Your task to perform on an android device: Open privacy settings Image 0: 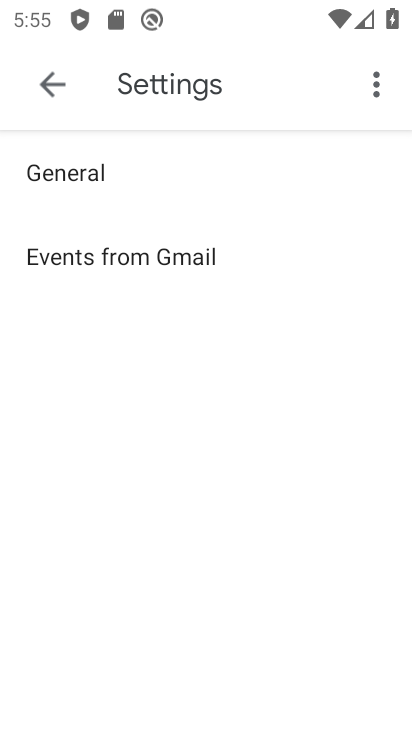
Step 0: press home button
Your task to perform on an android device: Open privacy settings Image 1: 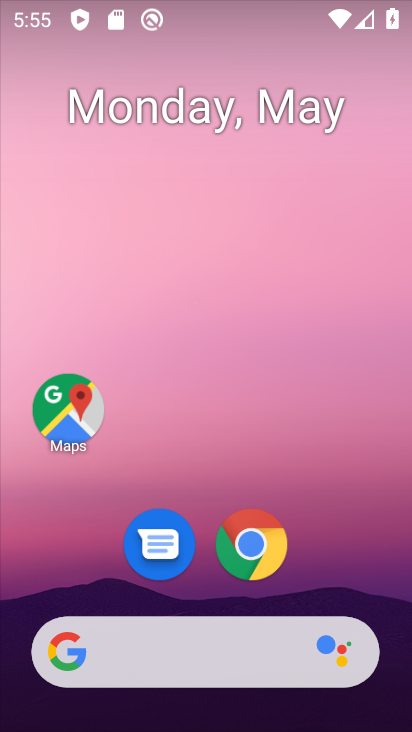
Step 1: drag from (345, 549) to (222, 10)
Your task to perform on an android device: Open privacy settings Image 2: 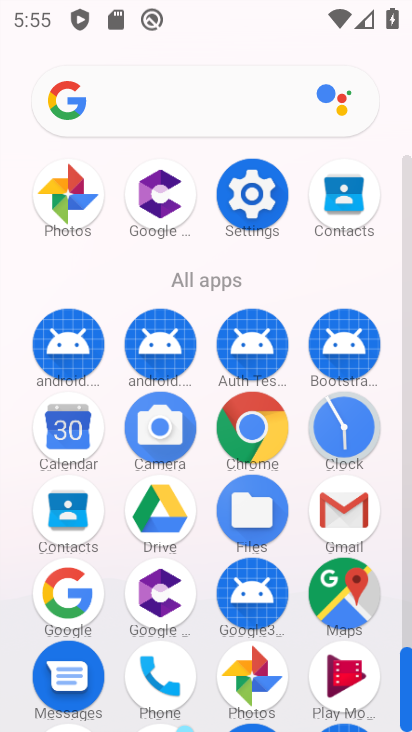
Step 2: click (250, 220)
Your task to perform on an android device: Open privacy settings Image 3: 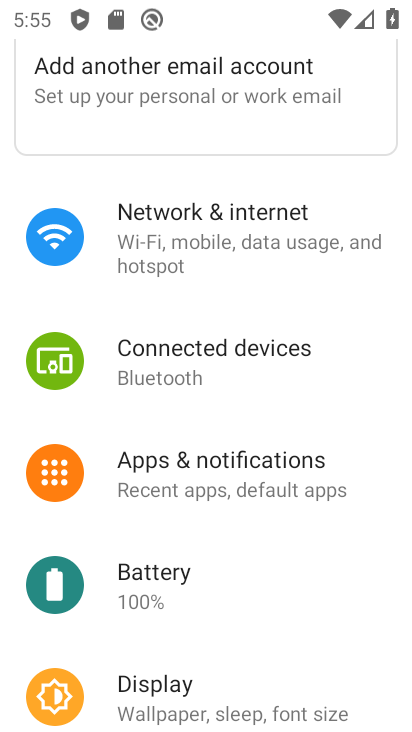
Step 3: drag from (243, 627) to (278, 100)
Your task to perform on an android device: Open privacy settings Image 4: 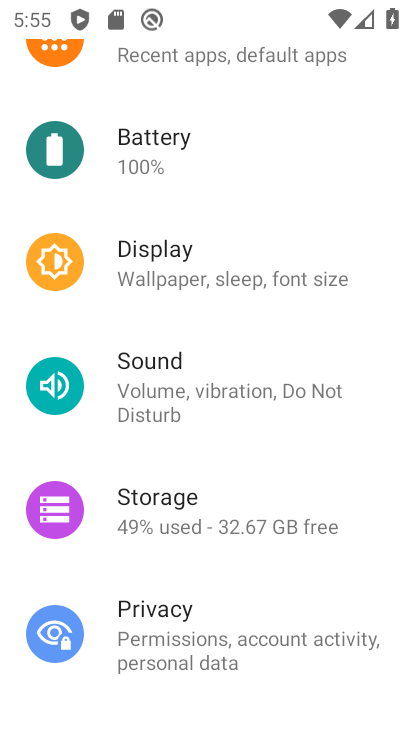
Step 4: click (188, 610)
Your task to perform on an android device: Open privacy settings Image 5: 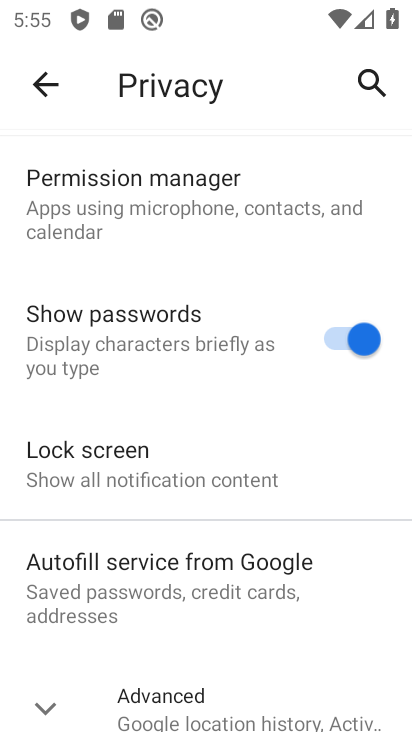
Step 5: task complete